Your task to perform on an android device: change notifications settings Image 0: 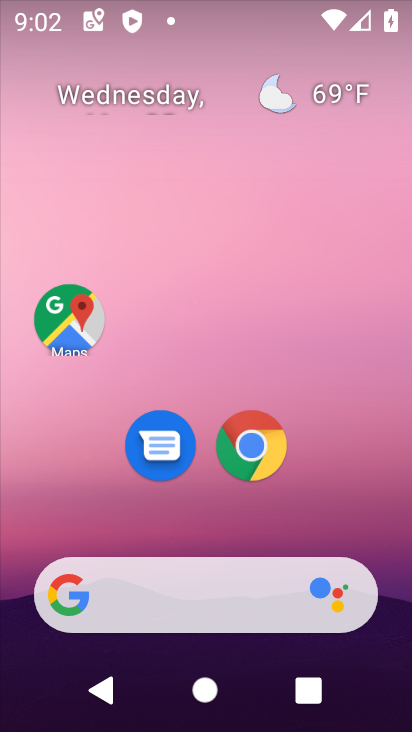
Step 0: drag from (355, 509) to (410, 195)
Your task to perform on an android device: change notifications settings Image 1: 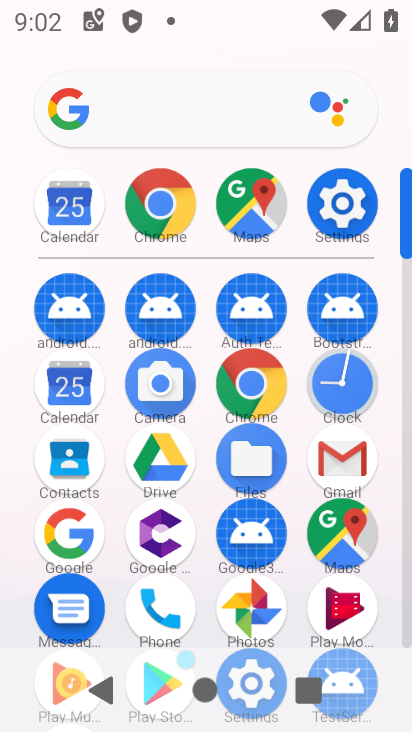
Step 1: click (353, 127)
Your task to perform on an android device: change notifications settings Image 2: 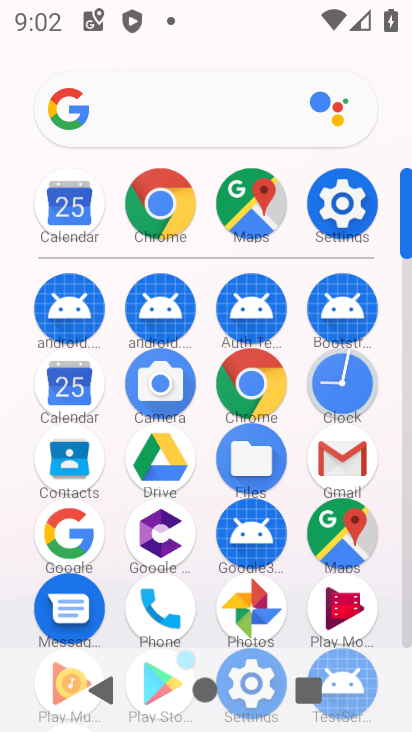
Step 2: click (346, 210)
Your task to perform on an android device: change notifications settings Image 3: 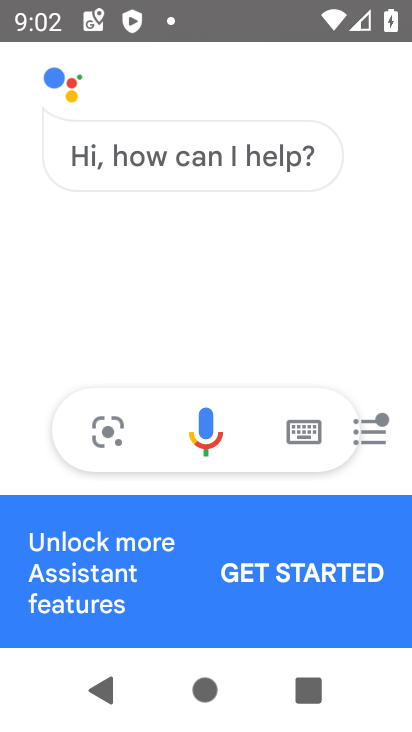
Step 3: press back button
Your task to perform on an android device: change notifications settings Image 4: 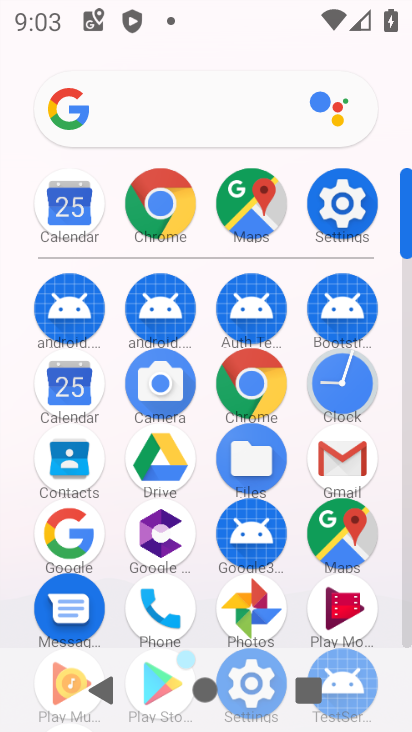
Step 4: click (337, 201)
Your task to perform on an android device: change notifications settings Image 5: 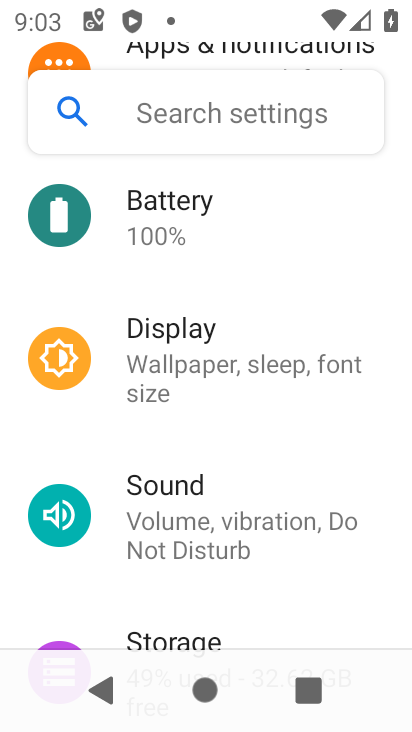
Step 5: drag from (263, 227) to (243, 481)
Your task to perform on an android device: change notifications settings Image 6: 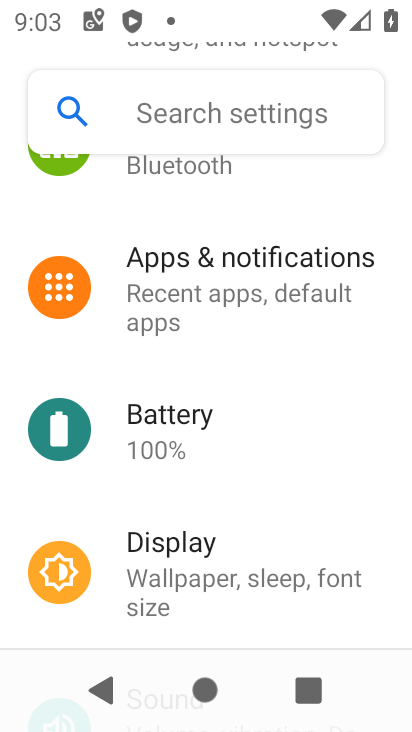
Step 6: click (236, 283)
Your task to perform on an android device: change notifications settings Image 7: 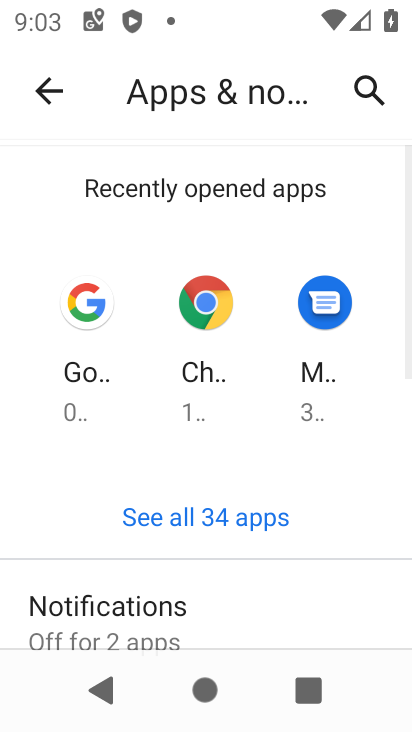
Step 7: drag from (281, 545) to (281, 237)
Your task to perform on an android device: change notifications settings Image 8: 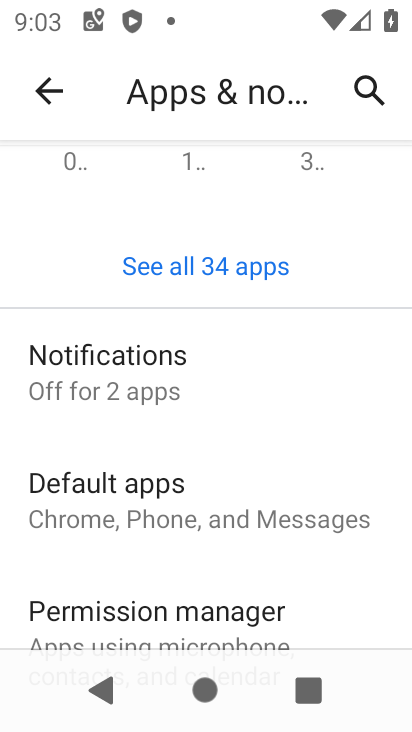
Step 8: click (116, 367)
Your task to perform on an android device: change notifications settings Image 9: 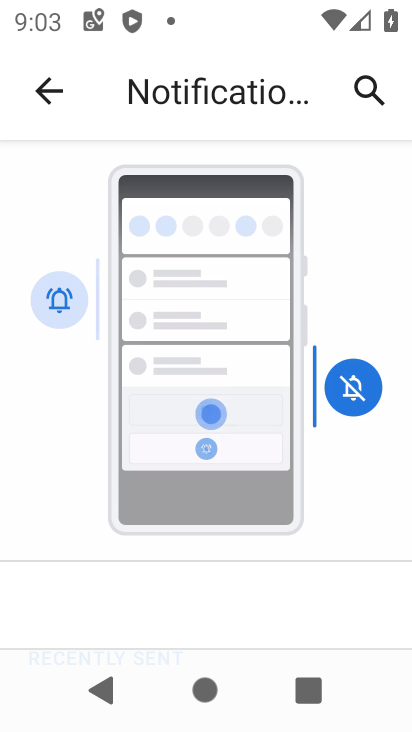
Step 9: drag from (279, 572) to (302, 170)
Your task to perform on an android device: change notifications settings Image 10: 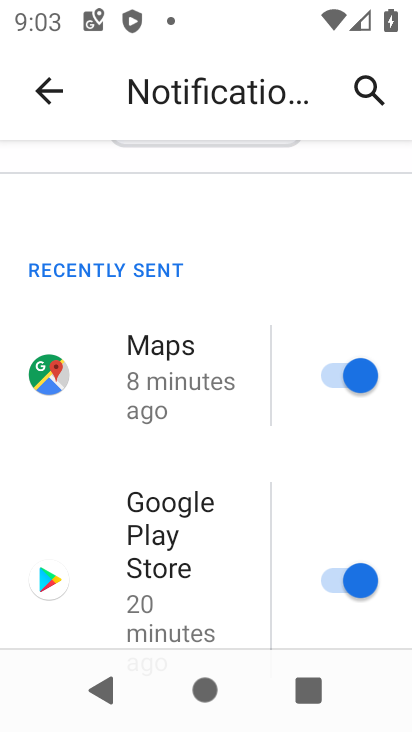
Step 10: drag from (264, 536) to (281, 287)
Your task to perform on an android device: change notifications settings Image 11: 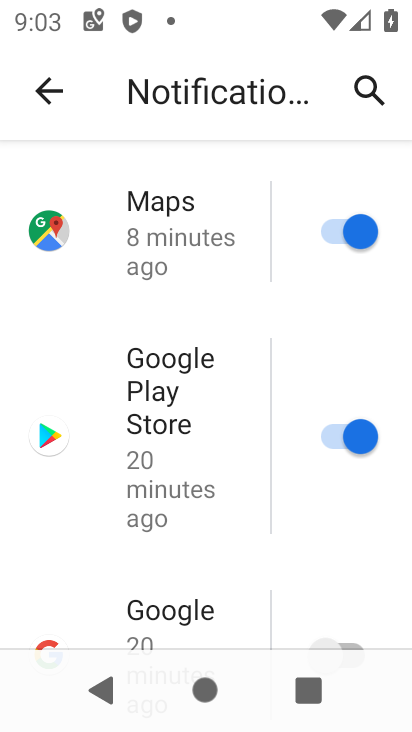
Step 11: drag from (262, 542) to (284, 215)
Your task to perform on an android device: change notifications settings Image 12: 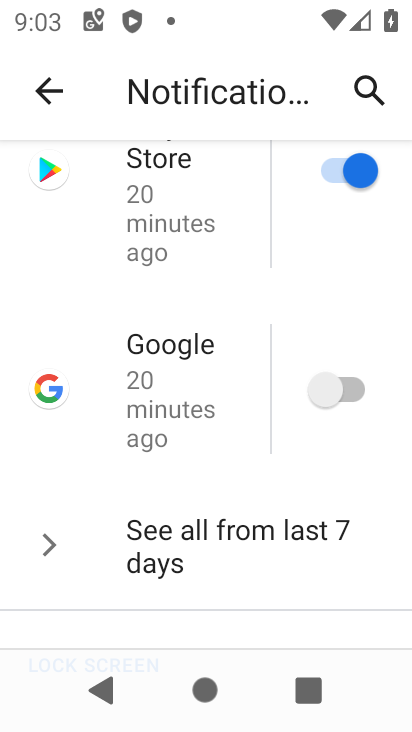
Step 12: click (324, 379)
Your task to perform on an android device: change notifications settings Image 13: 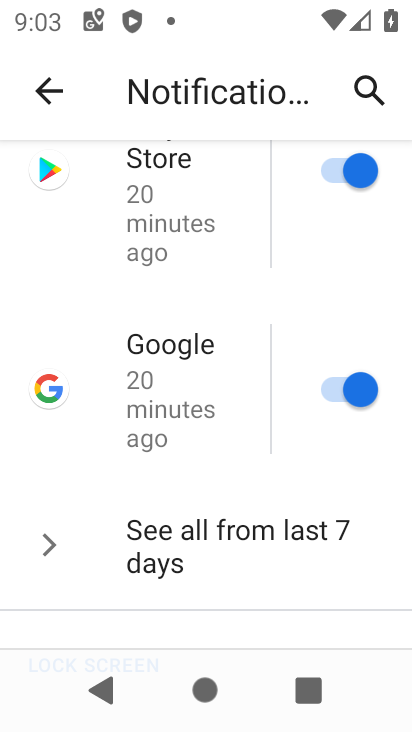
Step 13: task complete